Your task to perform on an android device: Open Chrome and go to the settings page Image 0: 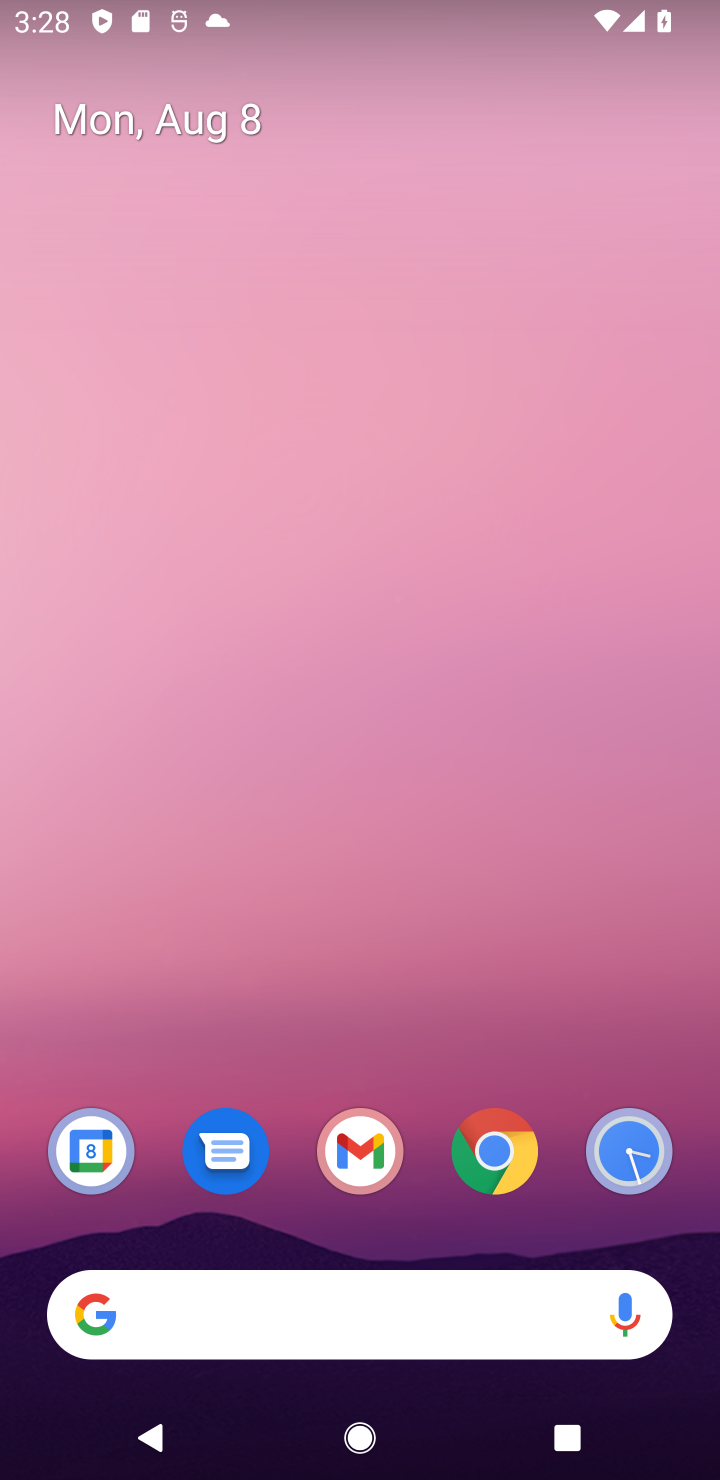
Step 0: click (481, 1159)
Your task to perform on an android device: Open Chrome and go to the settings page Image 1: 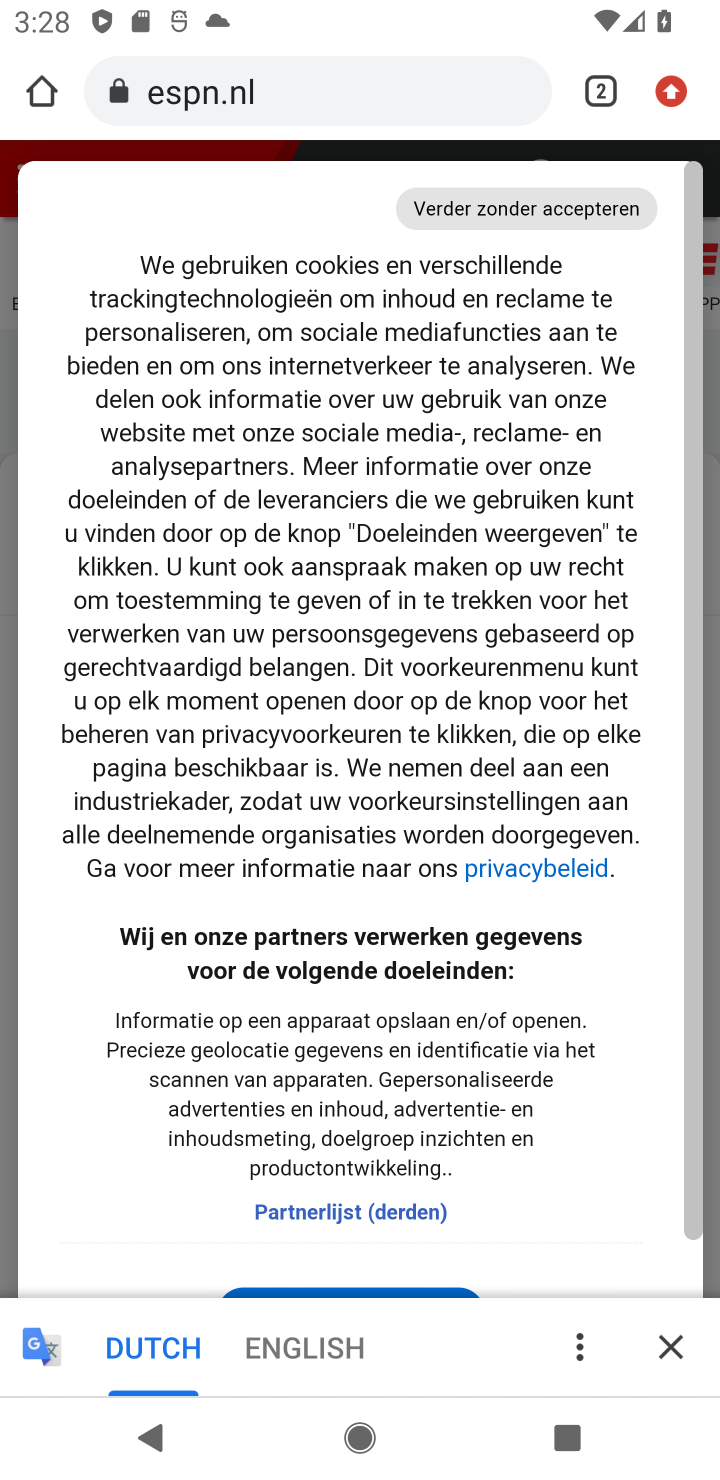
Step 1: click (671, 84)
Your task to perform on an android device: Open Chrome and go to the settings page Image 2: 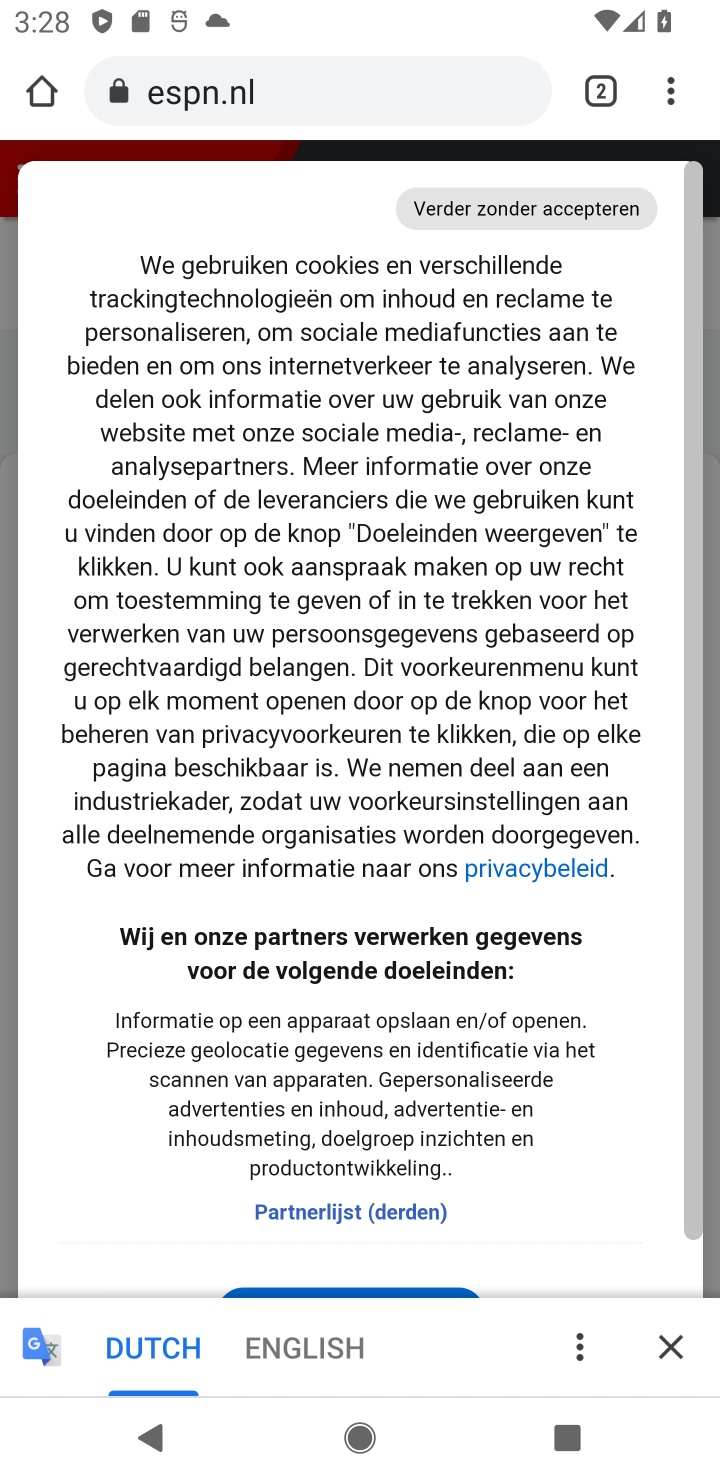
Step 2: click (681, 105)
Your task to perform on an android device: Open Chrome and go to the settings page Image 3: 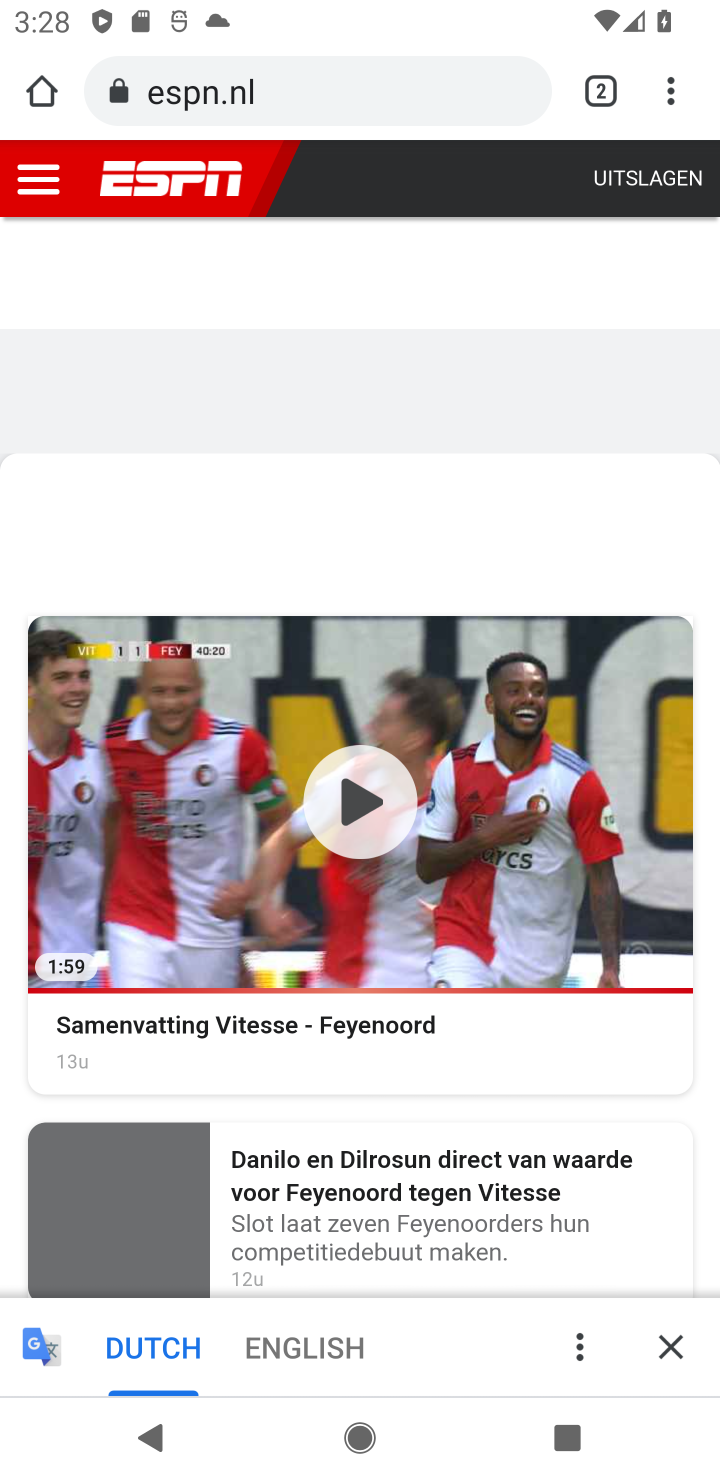
Step 3: task complete